Your task to perform on an android device: Find coffee shops on Maps Image 0: 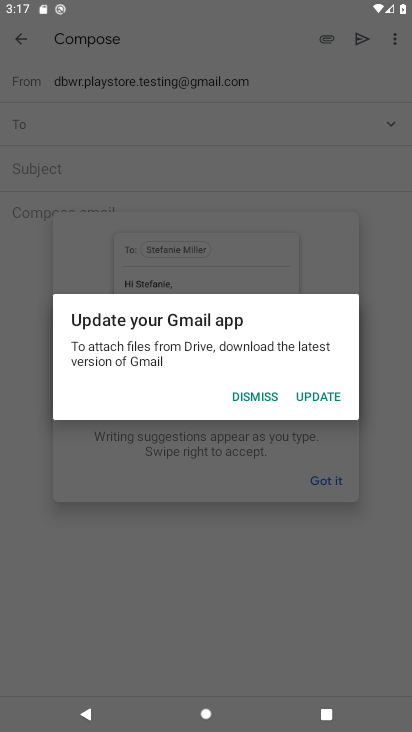
Step 0: press home button
Your task to perform on an android device: Find coffee shops on Maps Image 1: 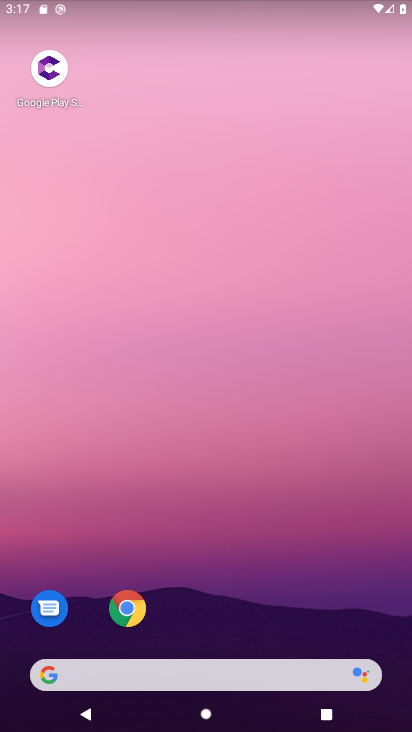
Step 1: drag from (292, 634) to (242, 108)
Your task to perform on an android device: Find coffee shops on Maps Image 2: 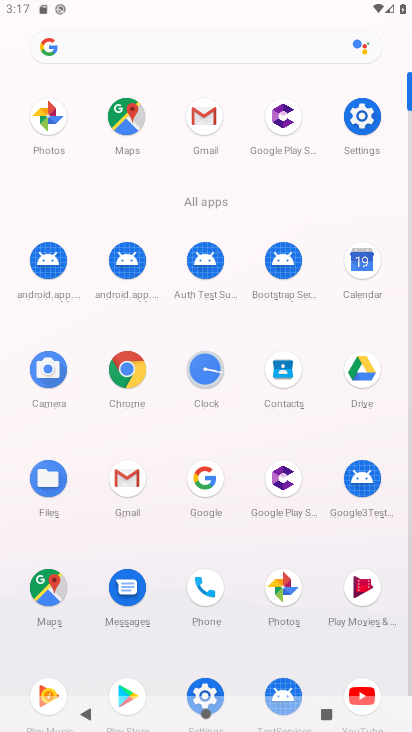
Step 2: click (124, 110)
Your task to perform on an android device: Find coffee shops on Maps Image 3: 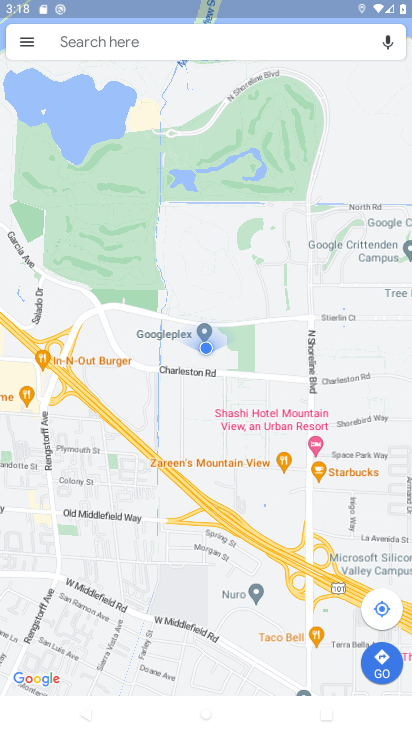
Step 3: click (282, 35)
Your task to perform on an android device: Find coffee shops on Maps Image 4: 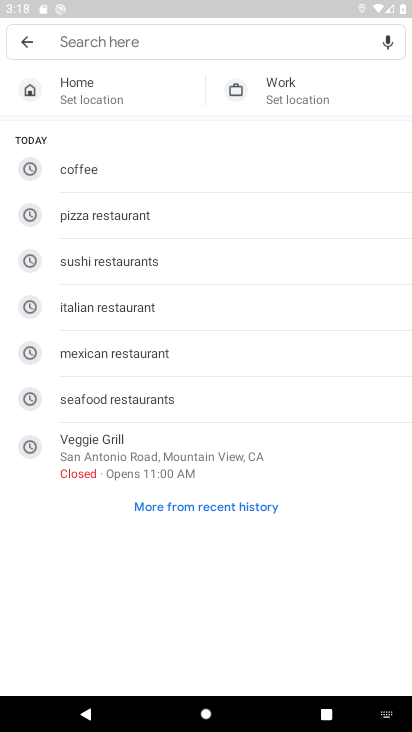
Step 4: type "coffee shops"
Your task to perform on an android device: Find coffee shops on Maps Image 5: 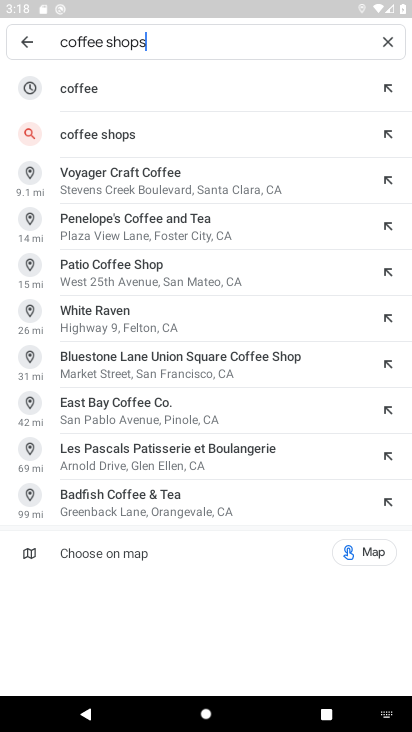
Step 5: click (169, 133)
Your task to perform on an android device: Find coffee shops on Maps Image 6: 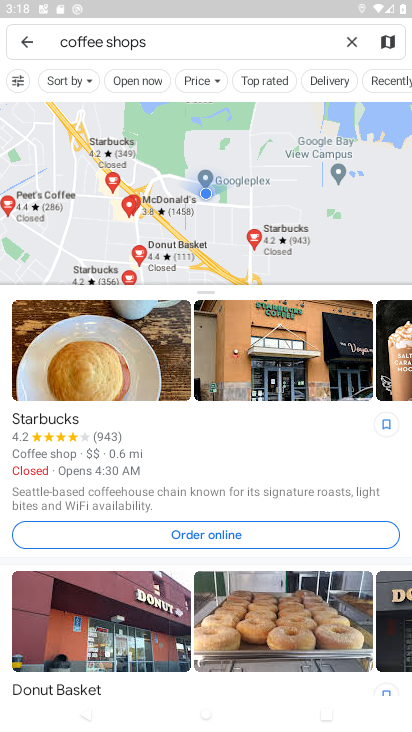
Step 6: task complete